Your task to perform on an android device: toggle improve location accuracy Image 0: 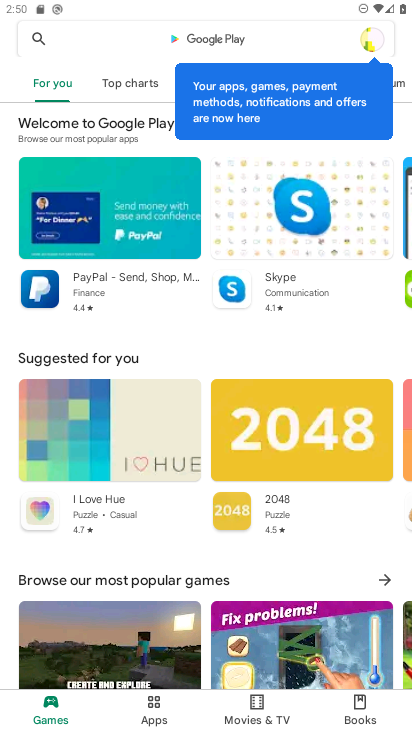
Step 0: press home button
Your task to perform on an android device: toggle improve location accuracy Image 1: 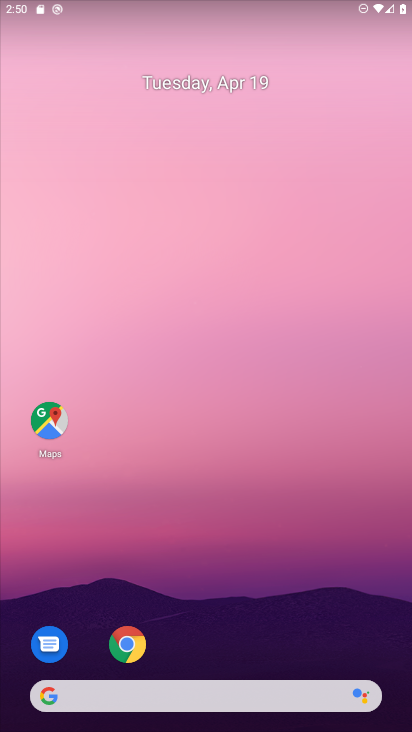
Step 1: drag from (196, 621) to (189, 298)
Your task to perform on an android device: toggle improve location accuracy Image 2: 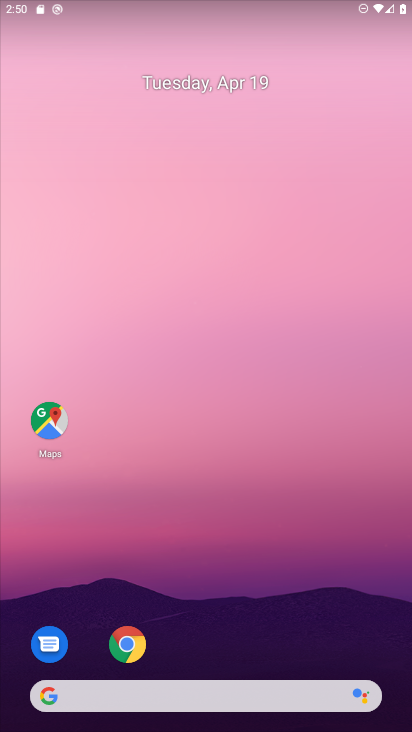
Step 2: drag from (213, 642) to (46, 81)
Your task to perform on an android device: toggle improve location accuracy Image 3: 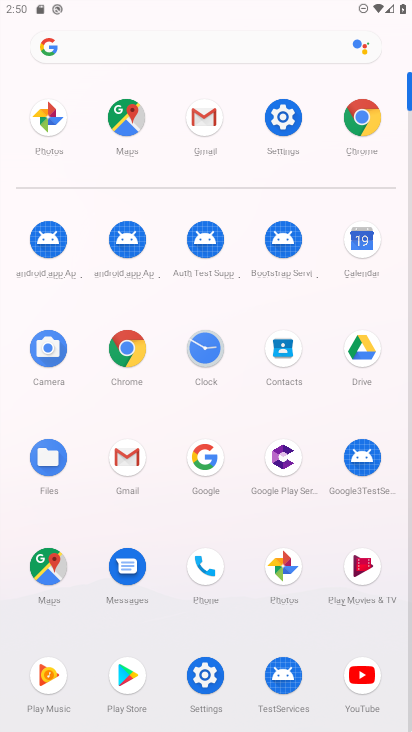
Step 3: click (278, 118)
Your task to perform on an android device: toggle improve location accuracy Image 4: 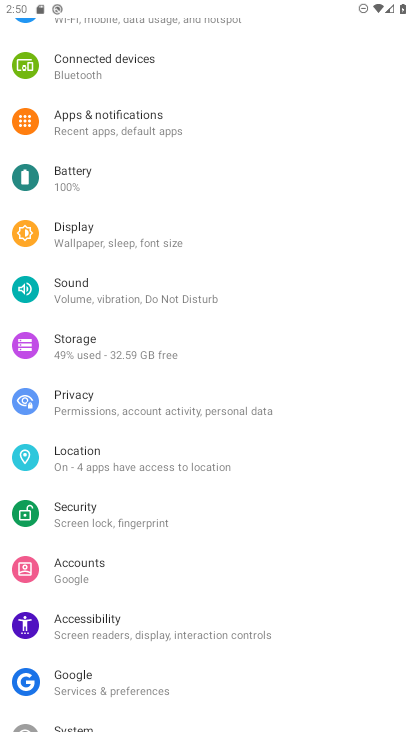
Step 4: click (94, 462)
Your task to perform on an android device: toggle improve location accuracy Image 5: 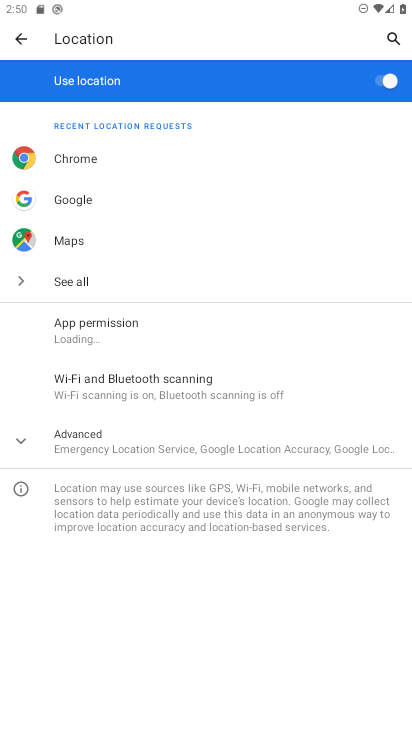
Step 5: click (91, 451)
Your task to perform on an android device: toggle improve location accuracy Image 6: 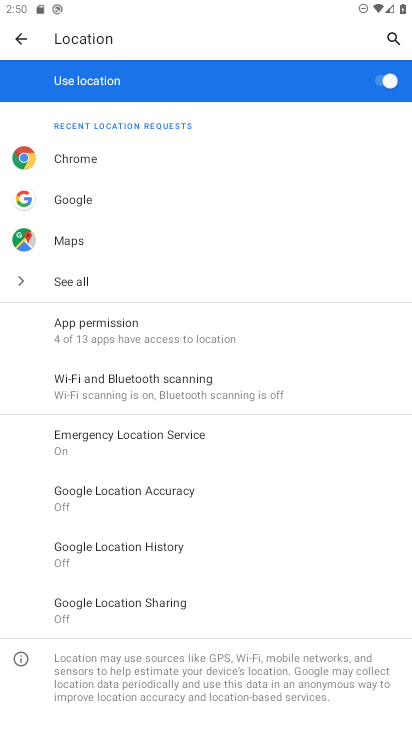
Step 6: click (139, 495)
Your task to perform on an android device: toggle improve location accuracy Image 7: 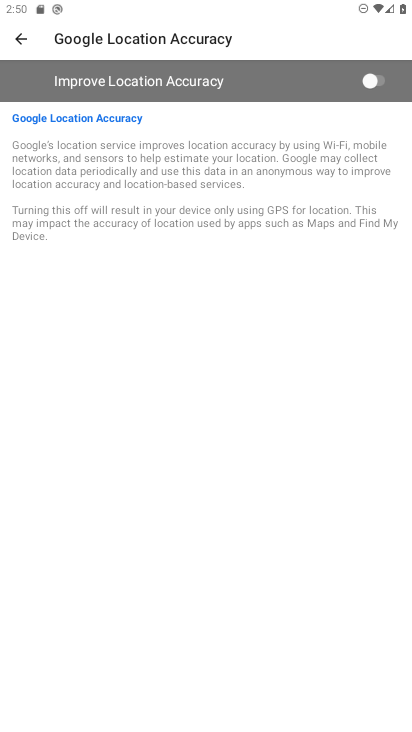
Step 7: click (371, 76)
Your task to perform on an android device: toggle improve location accuracy Image 8: 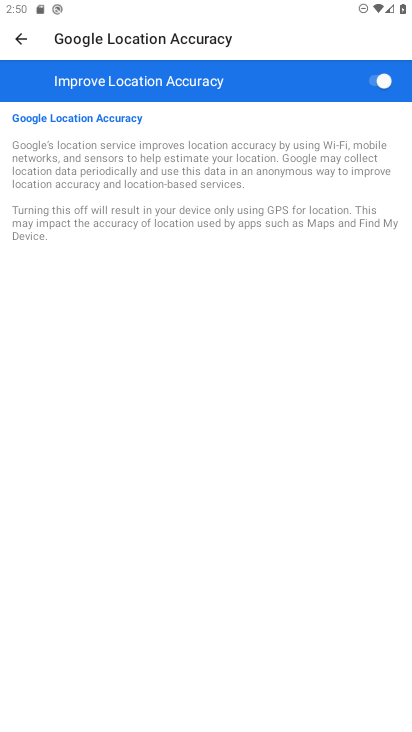
Step 8: task complete